Your task to perform on an android device: star an email in the gmail app Image 0: 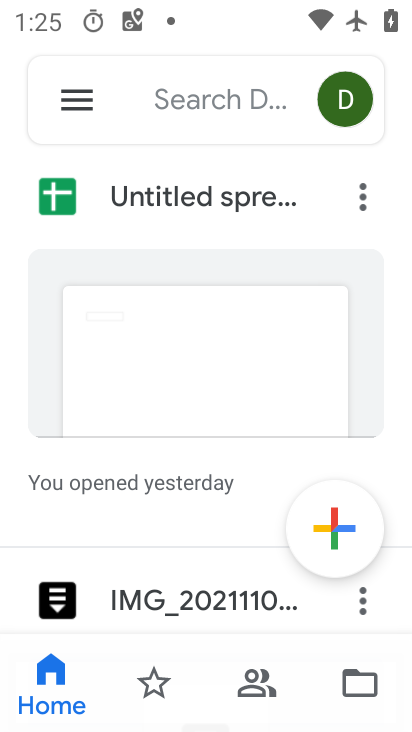
Step 0: press home button
Your task to perform on an android device: star an email in the gmail app Image 1: 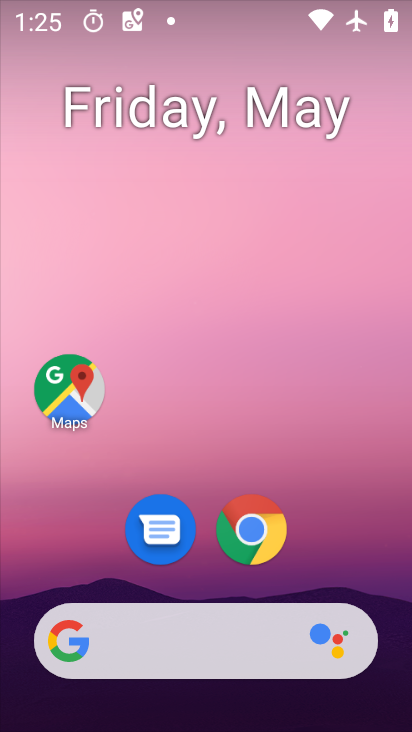
Step 1: drag from (167, 655) to (87, 84)
Your task to perform on an android device: star an email in the gmail app Image 2: 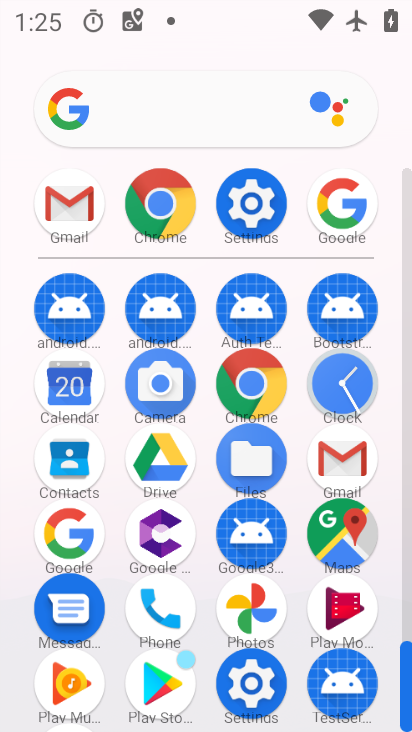
Step 2: click (357, 464)
Your task to perform on an android device: star an email in the gmail app Image 3: 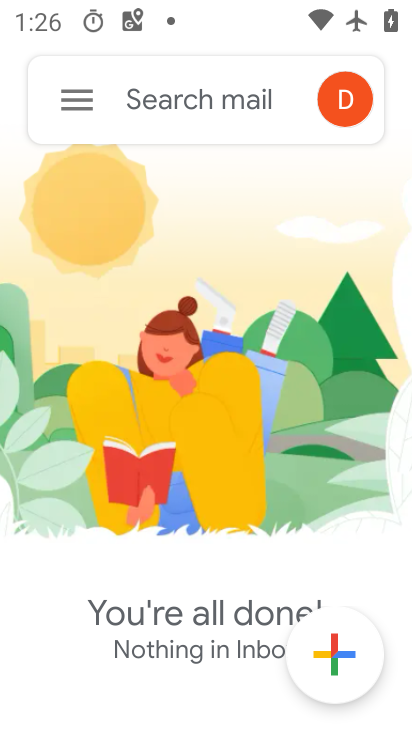
Step 3: click (85, 97)
Your task to perform on an android device: star an email in the gmail app Image 4: 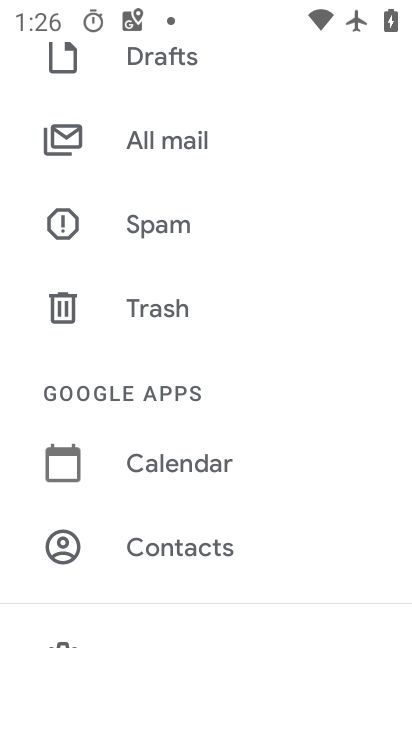
Step 4: click (219, 140)
Your task to perform on an android device: star an email in the gmail app Image 5: 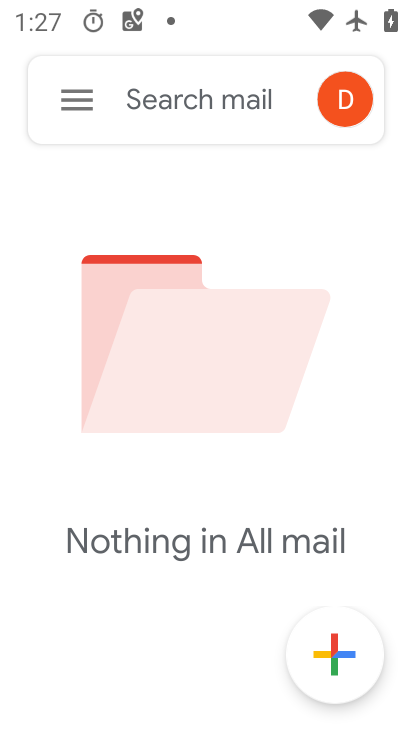
Step 5: click (82, 103)
Your task to perform on an android device: star an email in the gmail app Image 6: 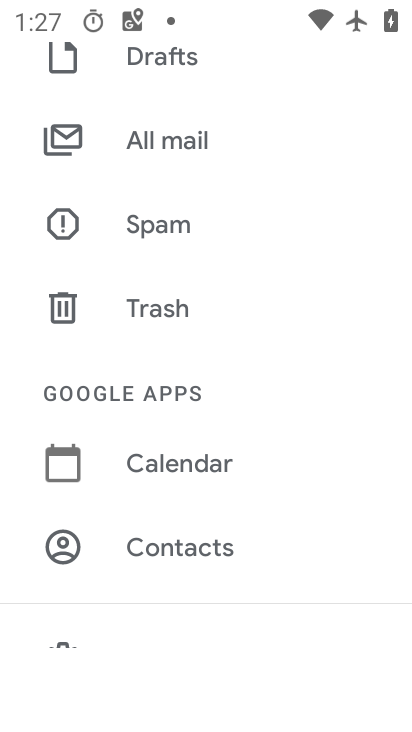
Step 6: task complete